Your task to perform on an android device: change notification settings in the gmail app Image 0: 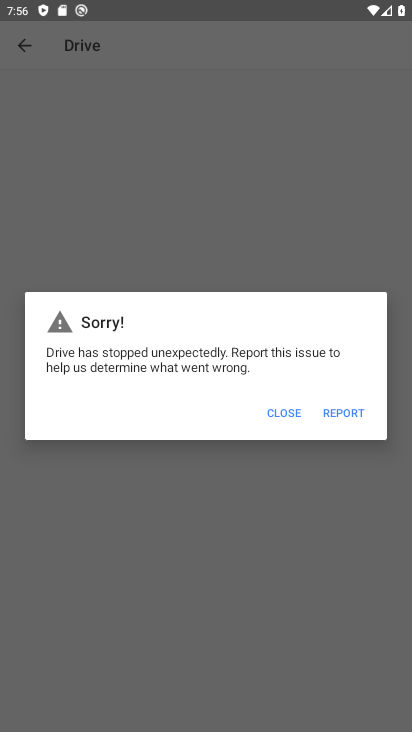
Step 0: press back button
Your task to perform on an android device: change notification settings in the gmail app Image 1: 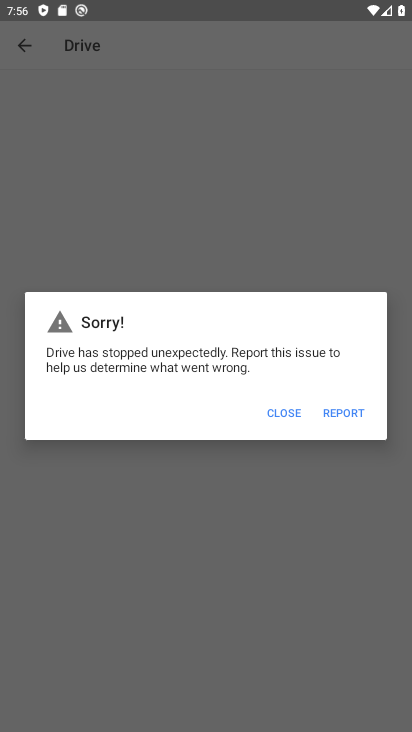
Step 1: press back button
Your task to perform on an android device: change notification settings in the gmail app Image 2: 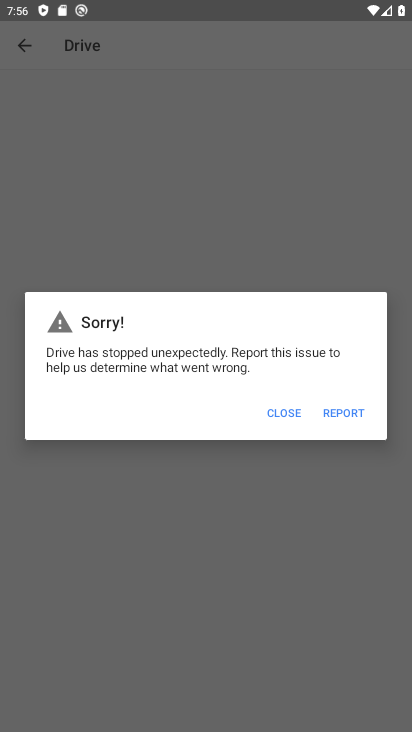
Step 2: press back button
Your task to perform on an android device: change notification settings in the gmail app Image 3: 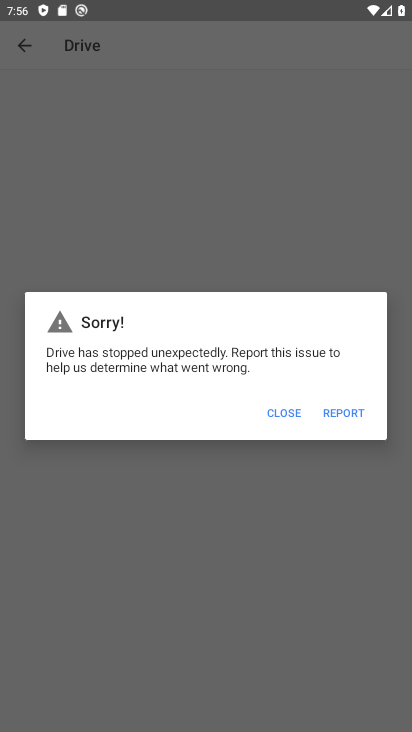
Step 3: press home button
Your task to perform on an android device: change notification settings in the gmail app Image 4: 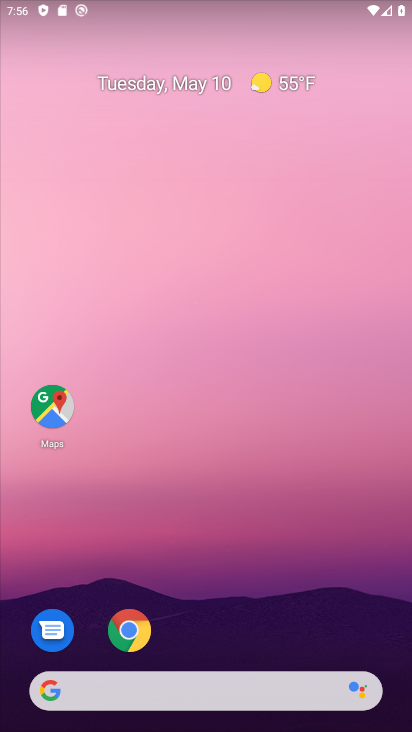
Step 4: drag from (256, 560) to (245, 0)
Your task to perform on an android device: change notification settings in the gmail app Image 5: 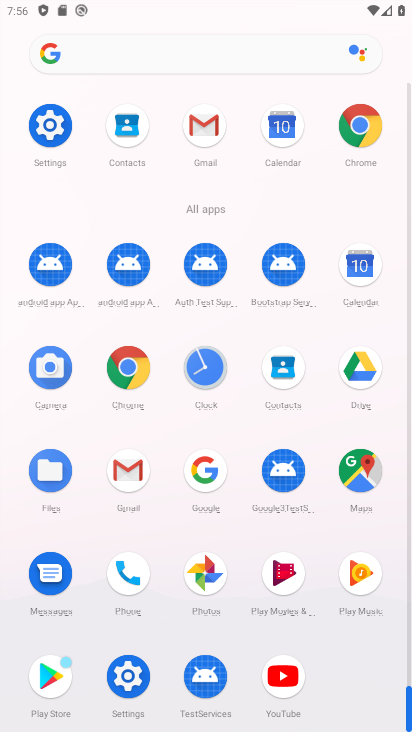
Step 5: click (129, 466)
Your task to perform on an android device: change notification settings in the gmail app Image 6: 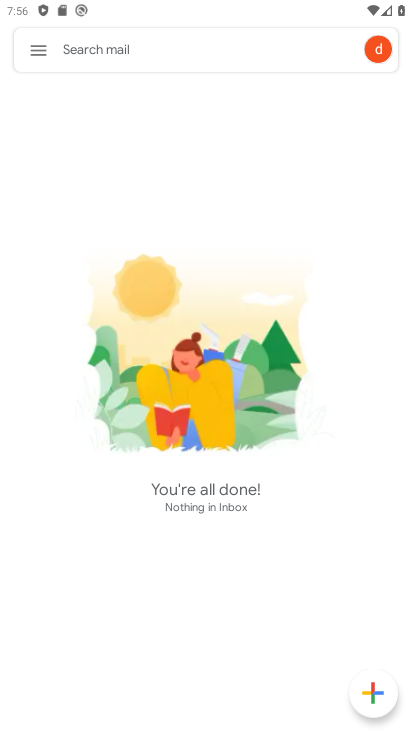
Step 6: click (43, 49)
Your task to perform on an android device: change notification settings in the gmail app Image 7: 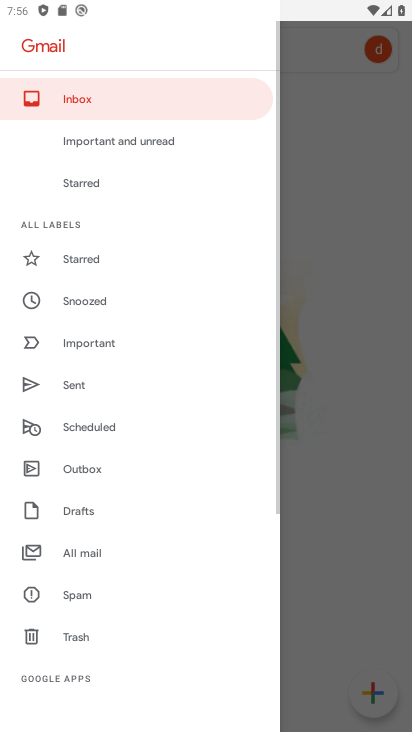
Step 7: drag from (123, 644) to (145, 123)
Your task to perform on an android device: change notification settings in the gmail app Image 8: 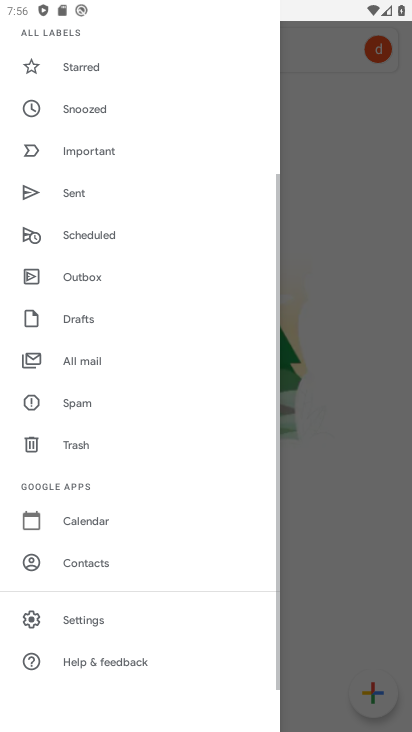
Step 8: click (99, 617)
Your task to perform on an android device: change notification settings in the gmail app Image 9: 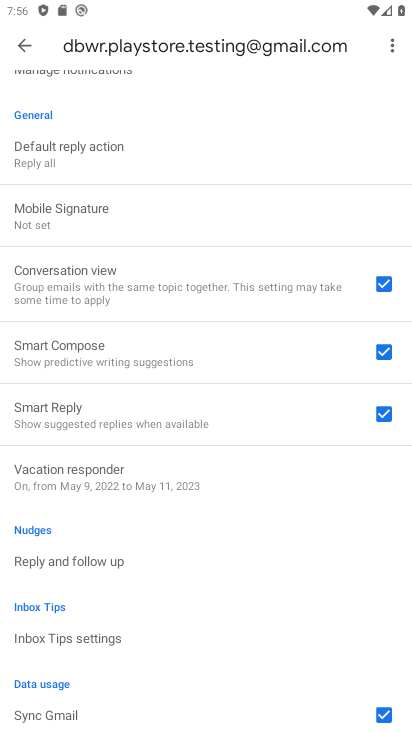
Step 9: drag from (174, 193) to (206, 643)
Your task to perform on an android device: change notification settings in the gmail app Image 10: 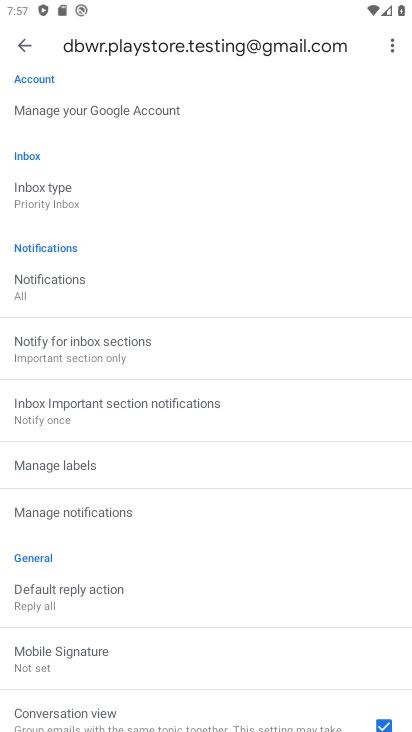
Step 10: click (86, 506)
Your task to perform on an android device: change notification settings in the gmail app Image 11: 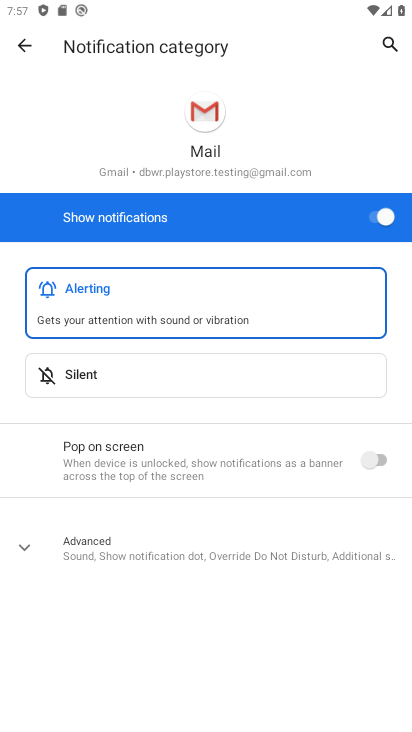
Step 11: click (374, 218)
Your task to perform on an android device: change notification settings in the gmail app Image 12: 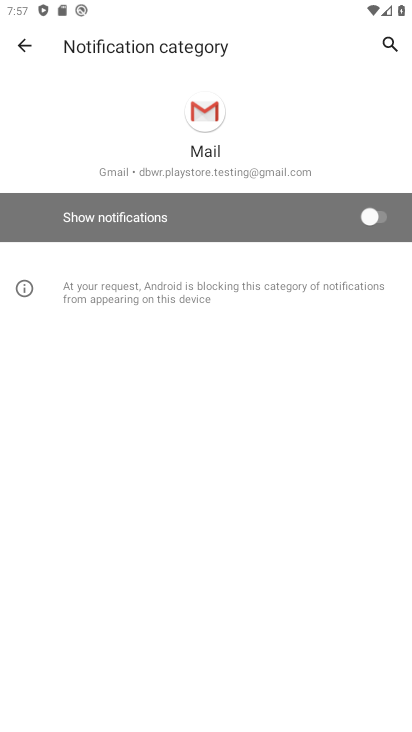
Step 12: task complete